Your task to perform on an android device: Show me the alarms in the clock app Image 0: 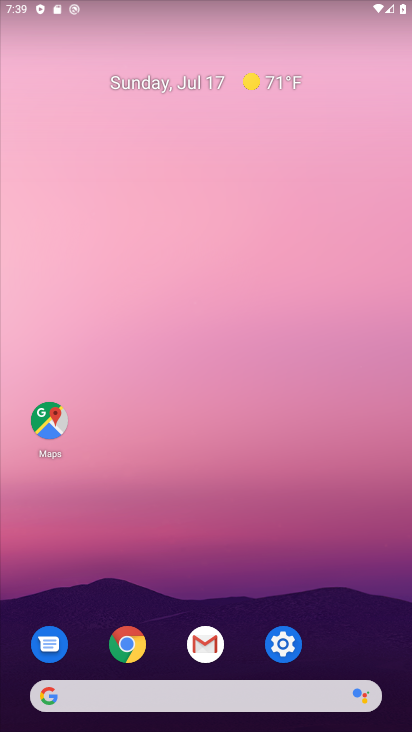
Step 0: drag from (264, 714) to (215, 270)
Your task to perform on an android device: Show me the alarms in the clock app Image 1: 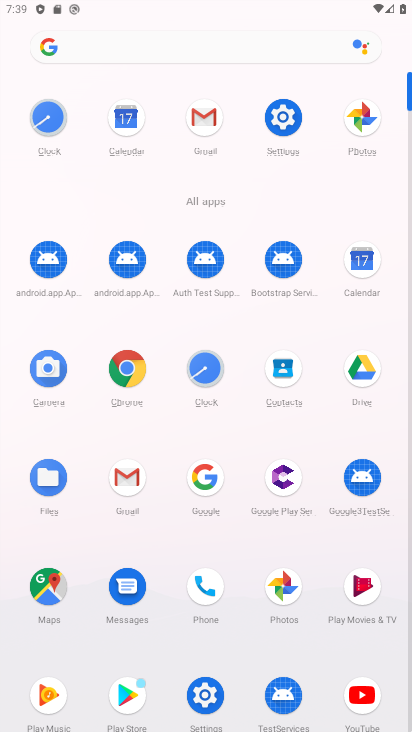
Step 1: click (206, 377)
Your task to perform on an android device: Show me the alarms in the clock app Image 2: 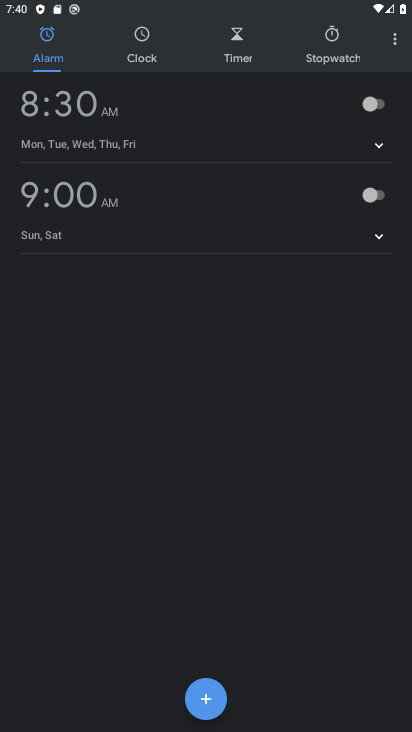
Step 2: click (51, 64)
Your task to perform on an android device: Show me the alarms in the clock app Image 3: 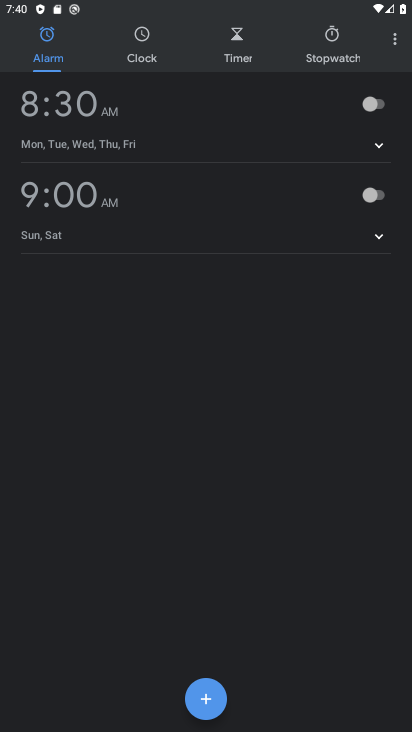
Step 3: click (124, 148)
Your task to perform on an android device: Show me the alarms in the clock app Image 4: 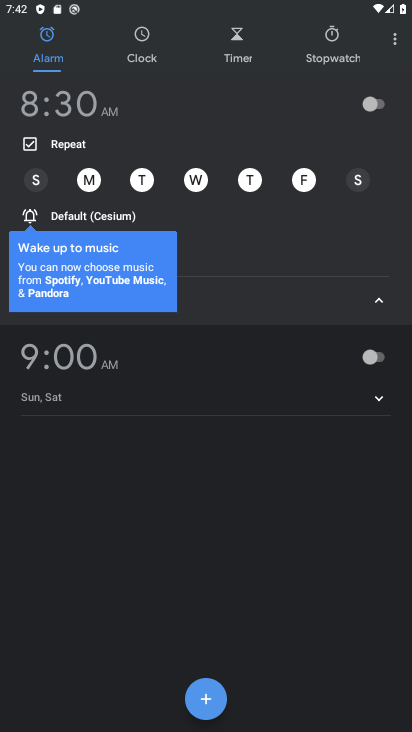
Step 4: task complete